Your task to perform on an android device: add a contact Image 0: 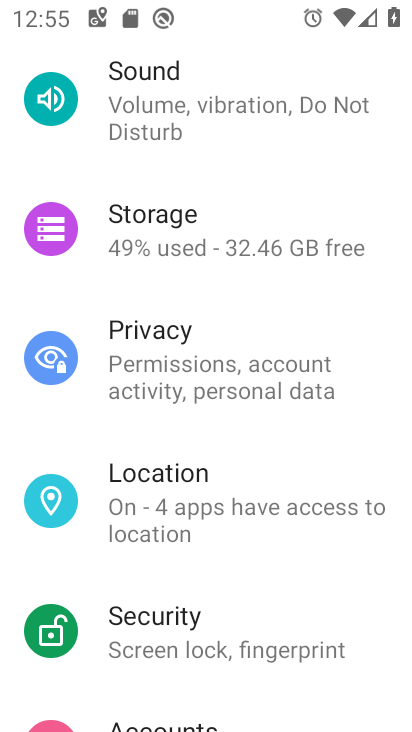
Step 0: press home button
Your task to perform on an android device: add a contact Image 1: 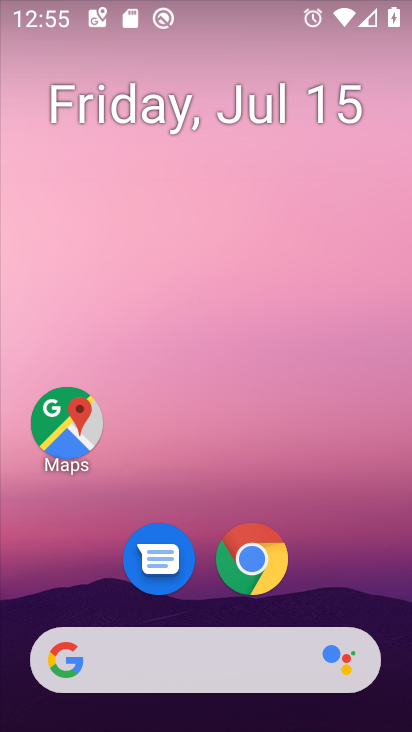
Step 1: drag from (357, 561) to (386, 174)
Your task to perform on an android device: add a contact Image 2: 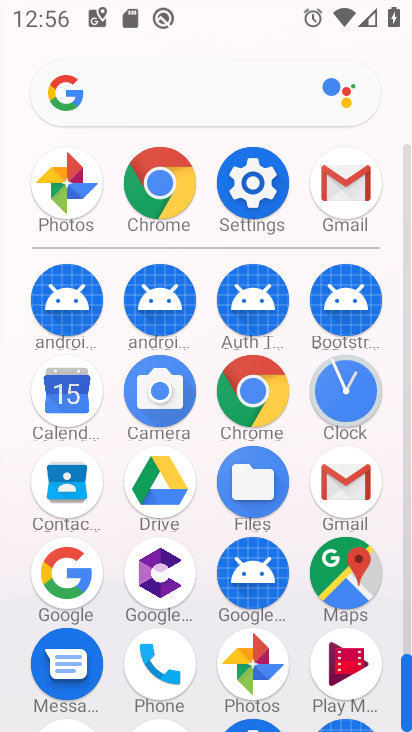
Step 2: click (65, 501)
Your task to perform on an android device: add a contact Image 3: 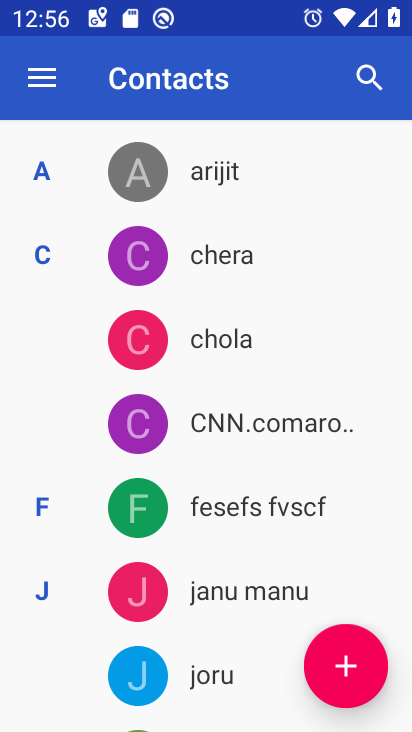
Step 3: click (338, 697)
Your task to perform on an android device: add a contact Image 4: 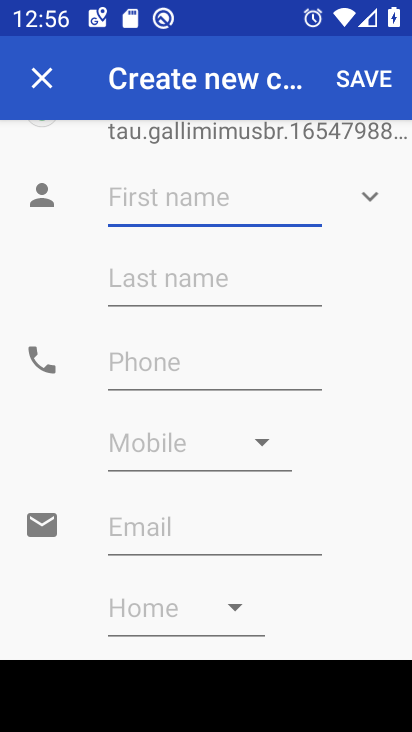
Step 4: type "jojo"
Your task to perform on an android device: add a contact Image 5: 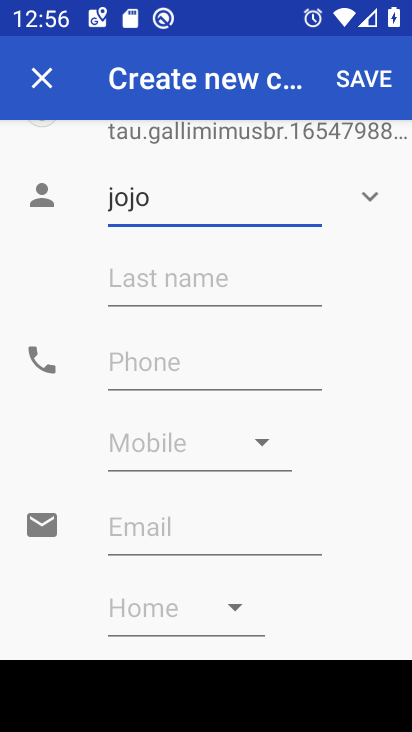
Step 5: click (190, 364)
Your task to perform on an android device: add a contact Image 6: 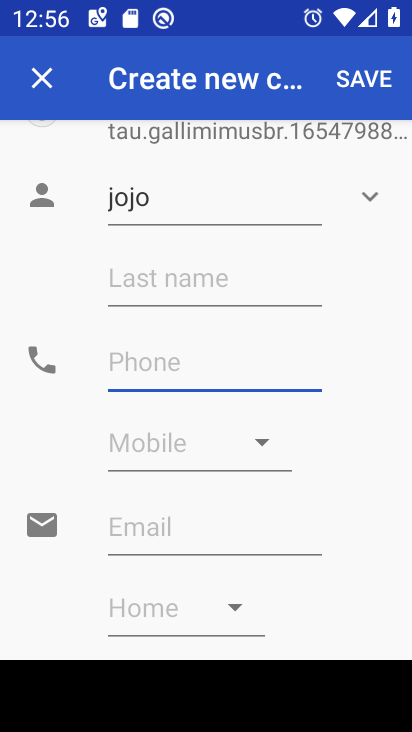
Step 6: type "1234567890"
Your task to perform on an android device: add a contact Image 7: 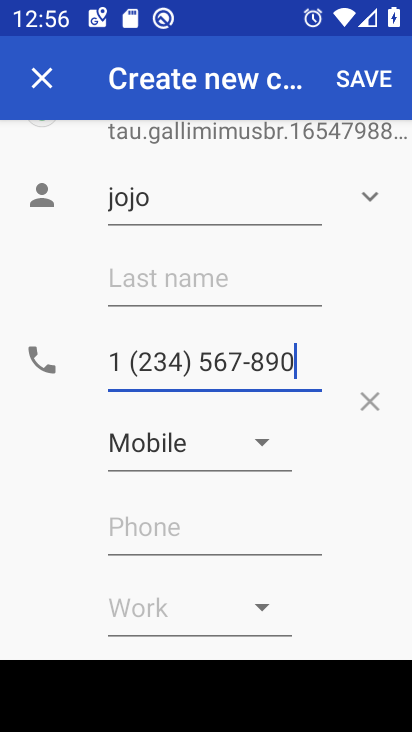
Step 7: click (374, 86)
Your task to perform on an android device: add a contact Image 8: 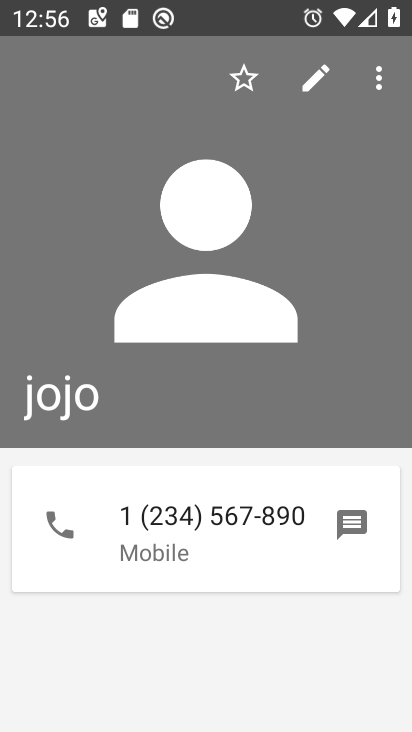
Step 8: task complete